Your task to perform on an android device: delete a single message in the gmail app Image 0: 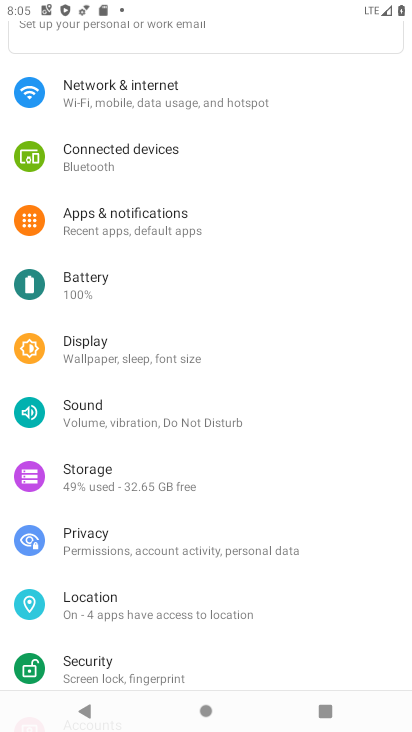
Step 0: press home button
Your task to perform on an android device: delete a single message in the gmail app Image 1: 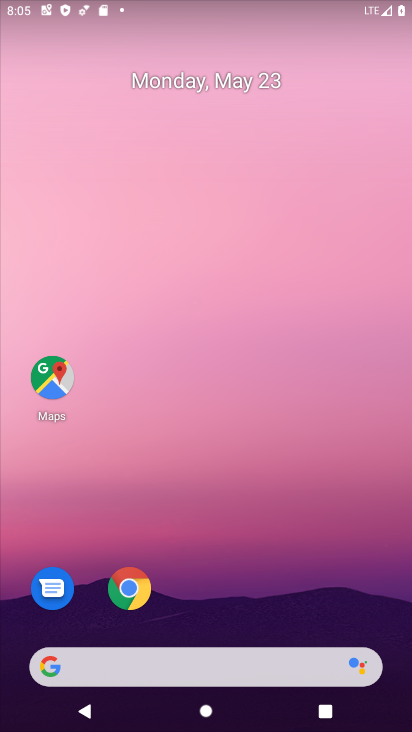
Step 1: drag from (390, 703) to (380, 29)
Your task to perform on an android device: delete a single message in the gmail app Image 2: 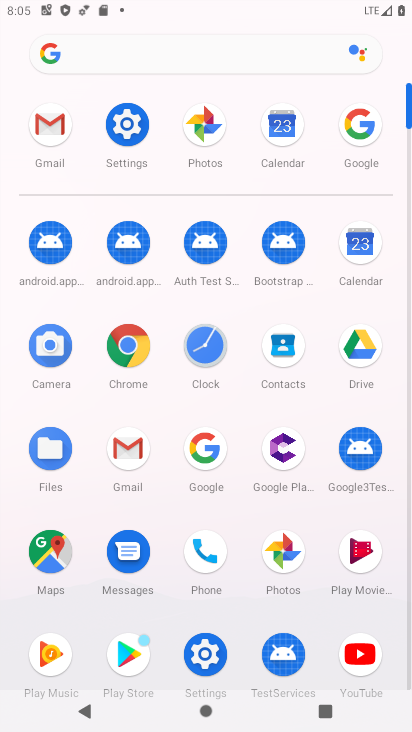
Step 2: click (118, 445)
Your task to perform on an android device: delete a single message in the gmail app Image 3: 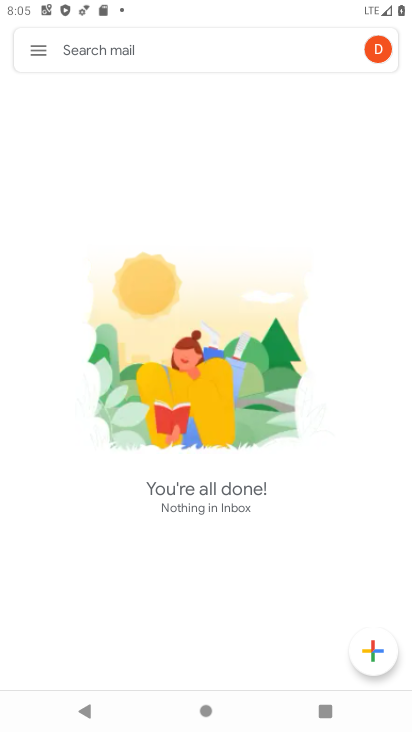
Step 3: click (30, 52)
Your task to perform on an android device: delete a single message in the gmail app Image 4: 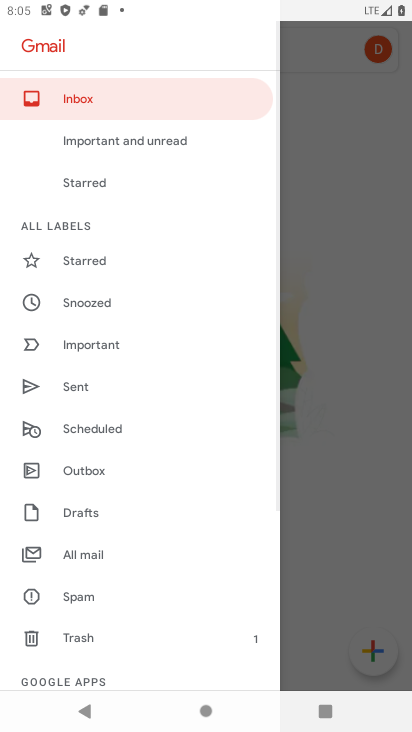
Step 4: click (94, 107)
Your task to perform on an android device: delete a single message in the gmail app Image 5: 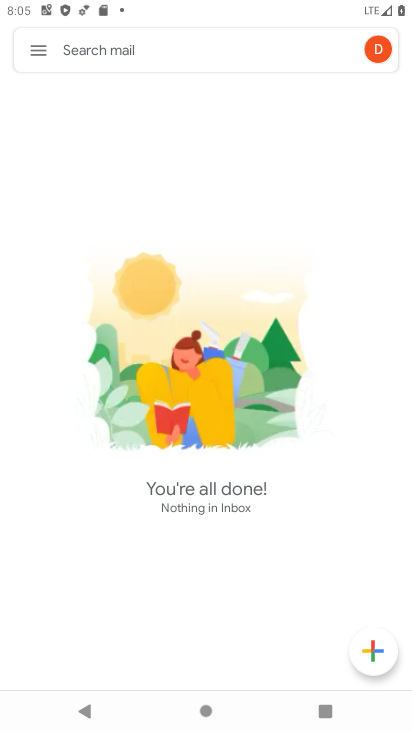
Step 5: task complete